Your task to perform on an android device: Go to Wikipedia Image 0: 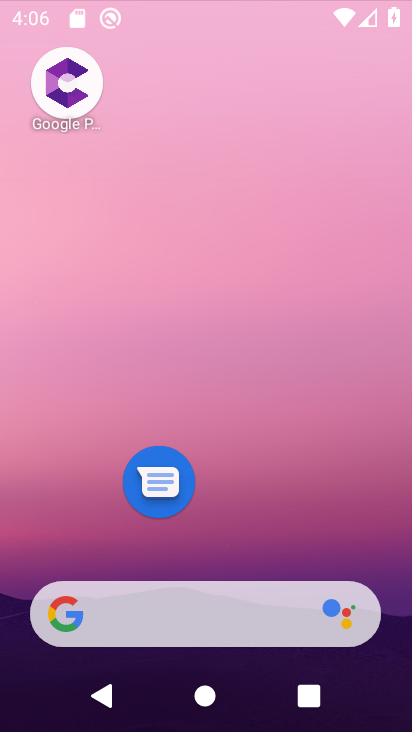
Step 0: click (288, 32)
Your task to perform on an android device: Go to Wikipedia Image 1: 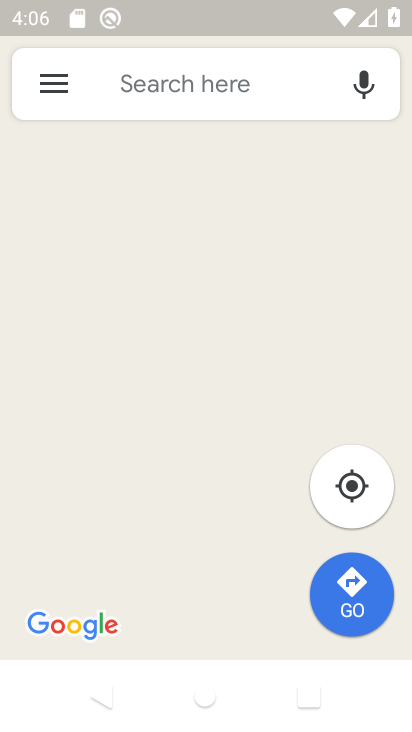
Step 1: press home button
Your task to perform on an android device: Go to Wikipedia Image 2: 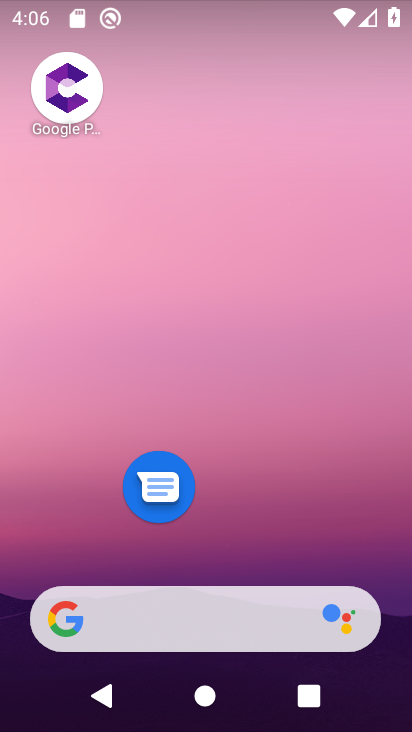
Step 2: drag from (253, 464) to (283, 71)
Your task to perform on an android device: Go to Wikipedia Image 3: 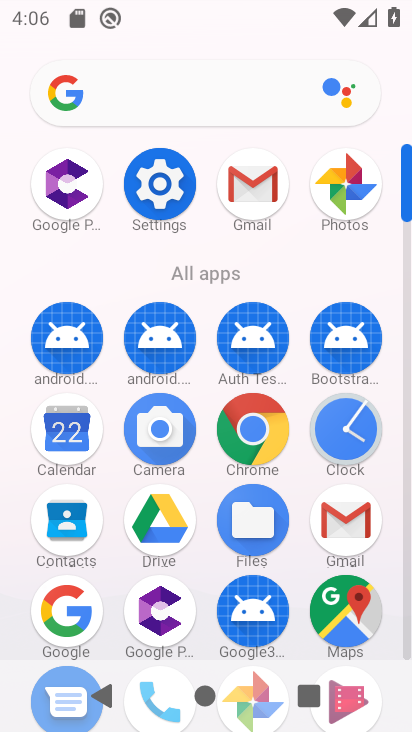
Step 3: click (239, 413)
Your task to perform on an android device: Go to Wikipedia Image 4: 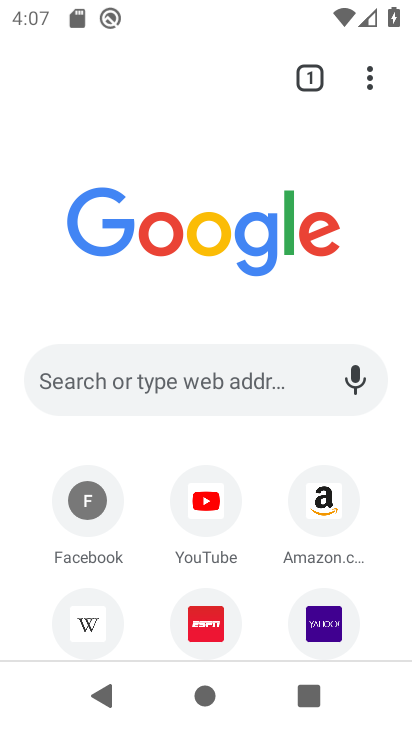
Step 4: click (91, 628)
Your task to perform on an android device: Go to Wikipedia Image 5: 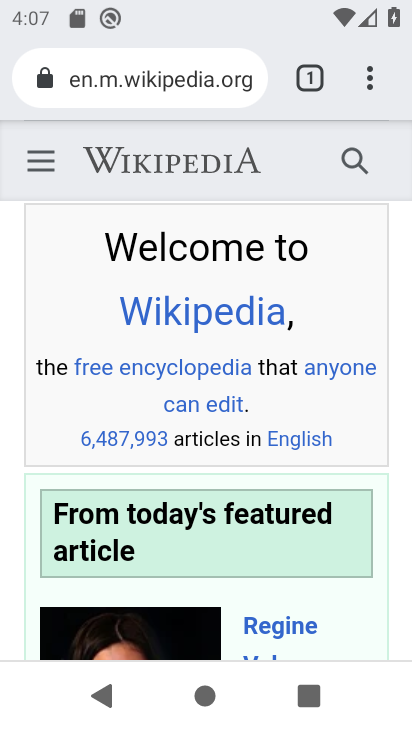
Step 5: task complete